Your task to perform on an android device: Search for seafood restaurants on Google Maps Image 0: 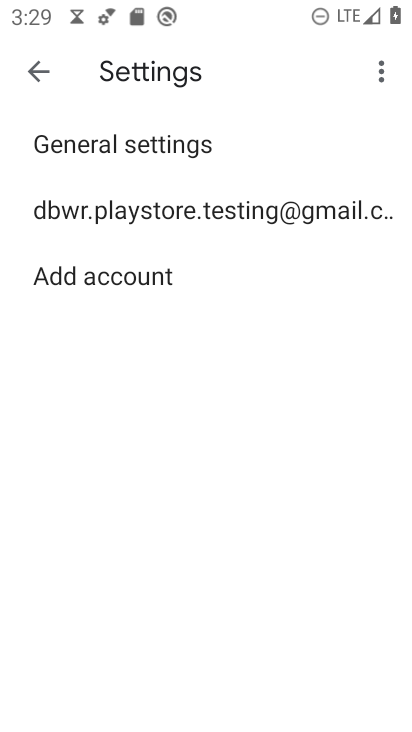
Step 0: click (342, 600)
Your task to perform on an android device: Search for seafood restaurants on Google Maps Image 1: 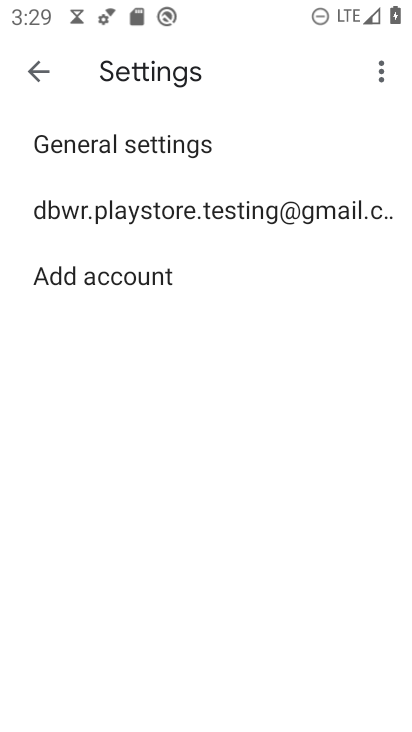
Step 1: press home button
Your task to perform on an android device: Search for seafood restaurants on Google Maps Image 2: 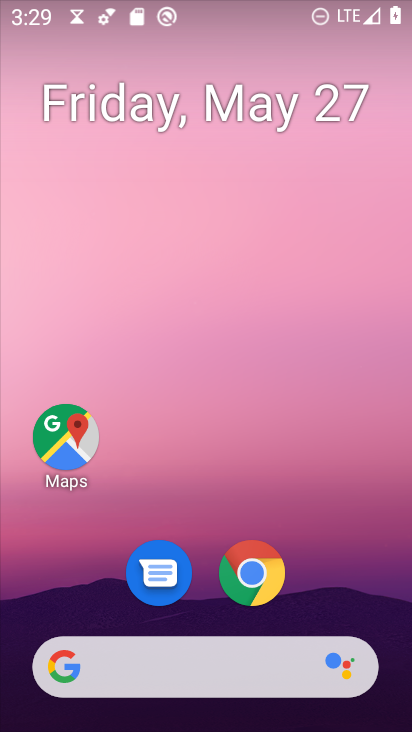
Step 2: click (65, 431)
Your task to perform on an android device: Search for seafood restaurants on Google Maps Image 3: 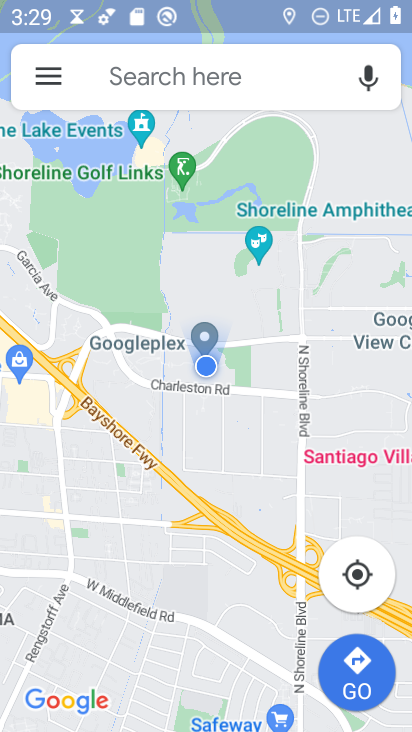
Step 3: click (173, 73)
Your task to perform on an android device: Search for seafood restaurants on Google Maps Image 4: 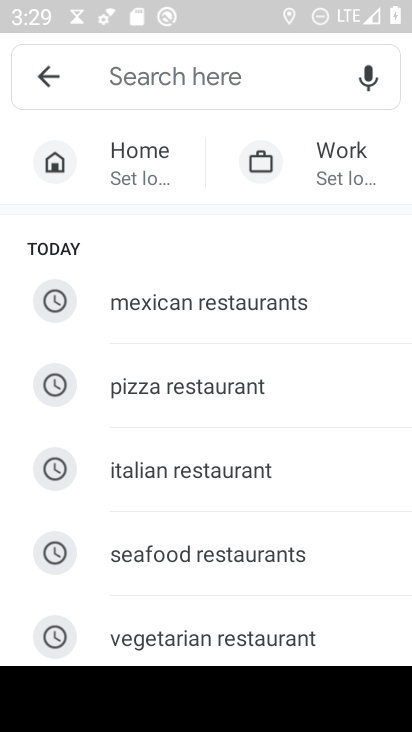
Step 4: type "seafood restaurants"
Your task to perform on an android device: Search for seafood restaurants on Google Maps Image 5: 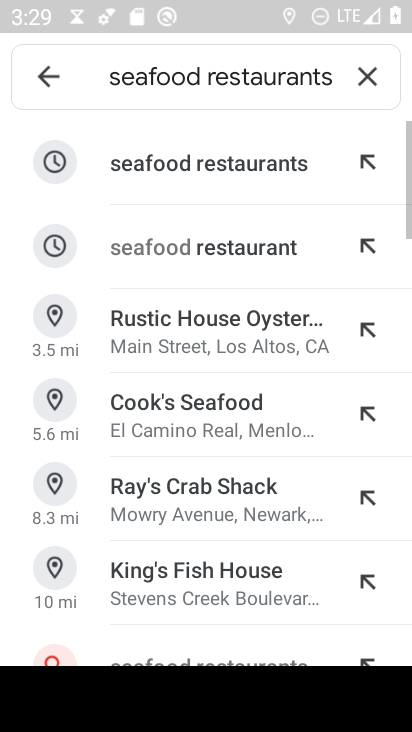
Step 5: click (204, 171)
Your task to perform on an android device: Search for seafood restaurants on Google Maps Image 6: 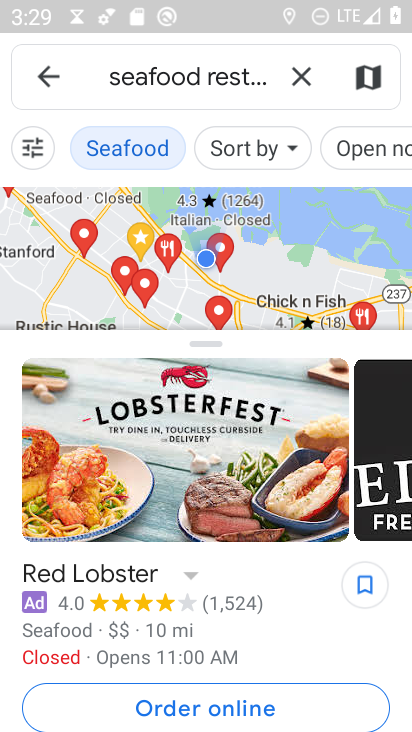
Step 6: task complete